Your task to perform on an android device: Open Chrome and go to settings Image 0: 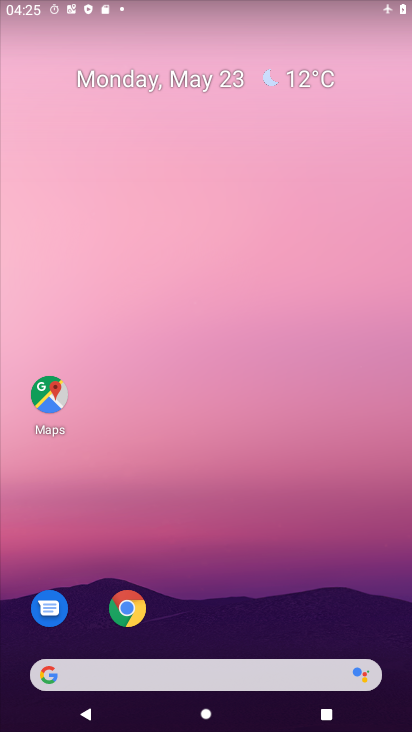
Step 0: click (135, 604)
Your task to perform on an android device: Open Chrome and go to settings Image 1: 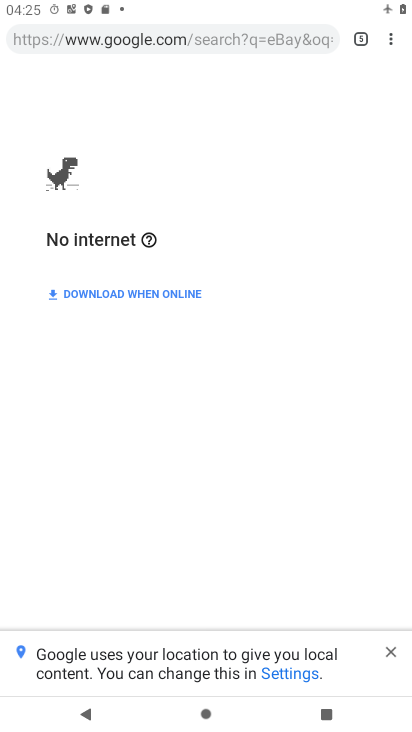
Step 1: click (391, 40)
Your task to perform on an android device: Open Chrome and go to settings Image 2: 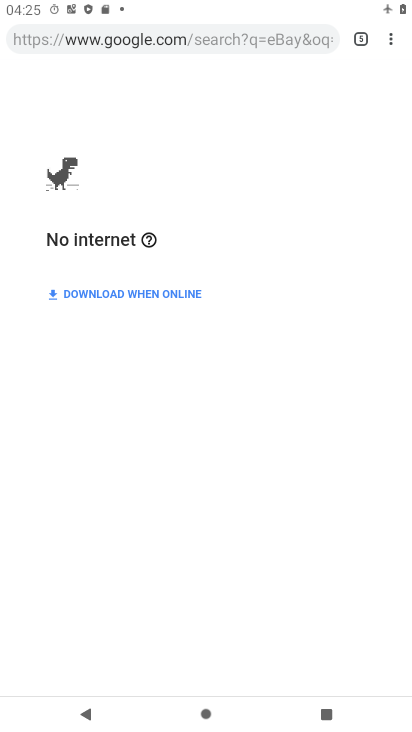
Step 2: click (384, 38)
Your task to perform on an android device: Open Chrome and go to settings Image 3: 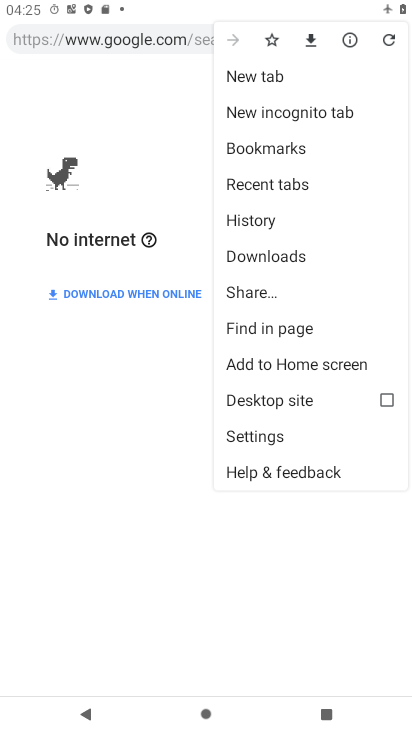
Step 3: click (292, 440)
Your task to perform on an android device: Open Chrome and go to settings Image 4: 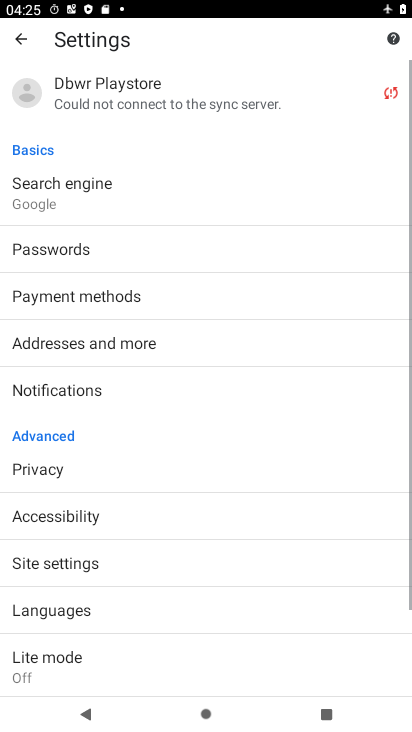
Step 4: task complete